Your task to perform on an android device: check android version Image 0: 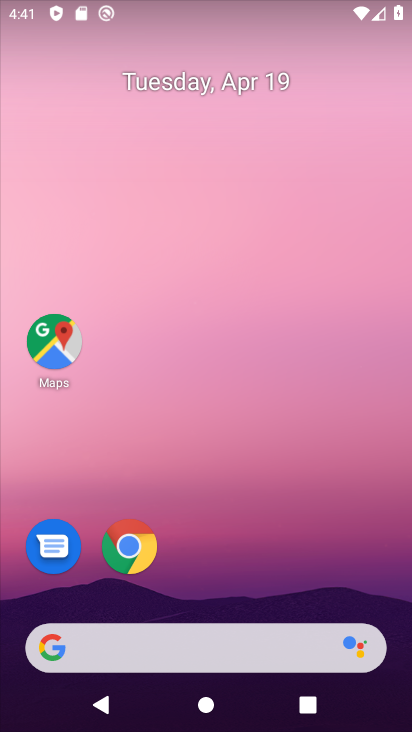
Step 0: drag from (352, 544) to (304, 181)
Your task to perform on an android device: check android version Image 1: 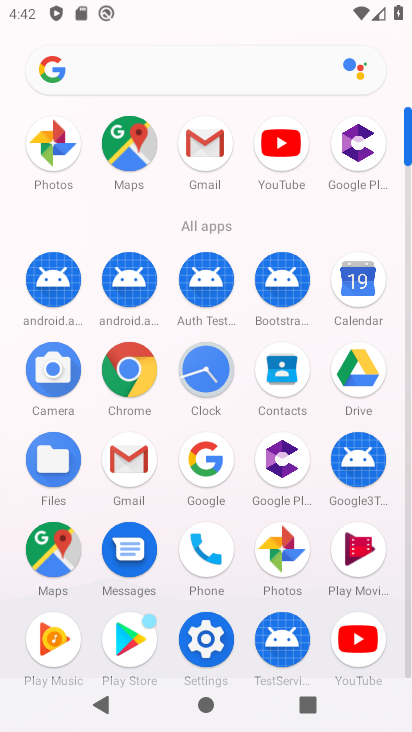
Step 1: click (203, 626)
Your task to perform on an android device: check android version Image 2: 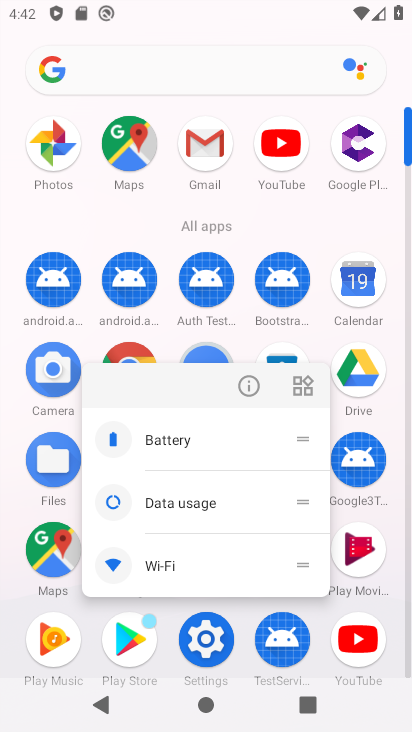
Step 2: click (212, 626)
Your task to perform on an android device: check android version Image 3: 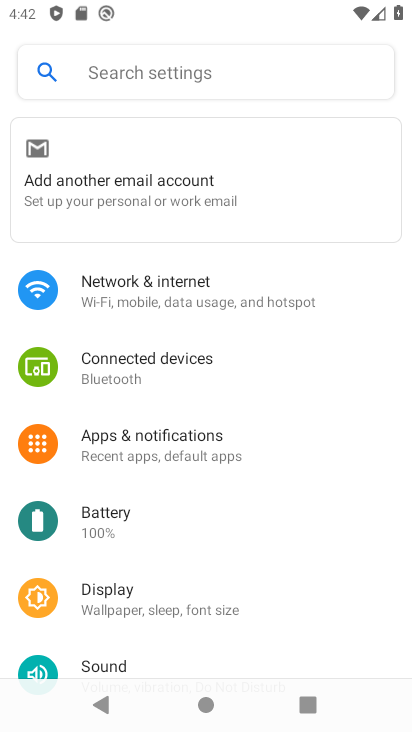
Step 3: drag from (213, 443) to (208, 255)
Your task to perform on an android device: check android version Image 4: 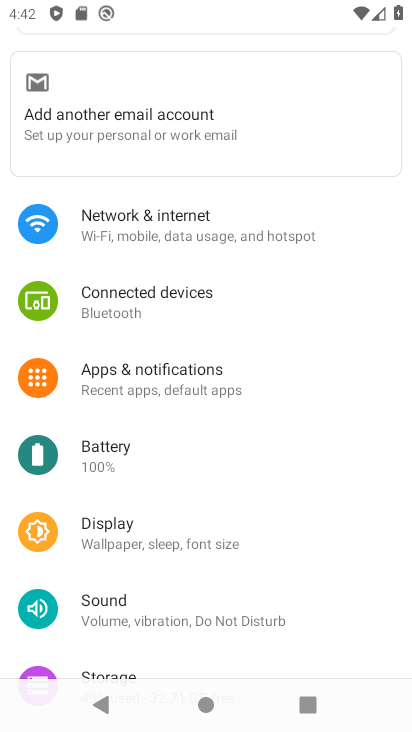
Step 4: drag from (226, 470) to (289, 174)
Your task to perform on an android device: check android version Image 5: 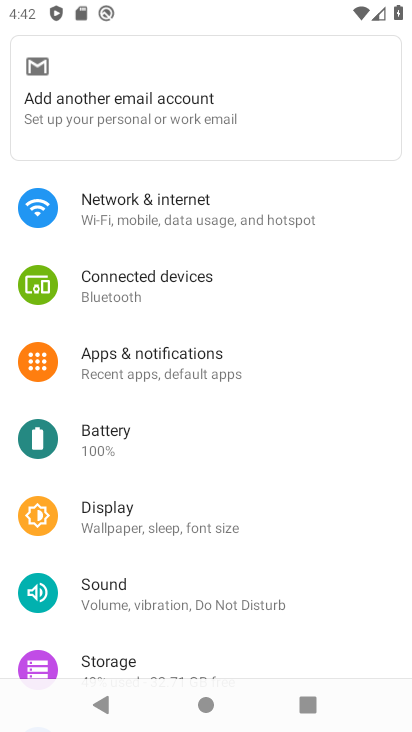
Step 5: drag from (227, 499) to (268, 151)
Your task to perform on an android device: check android version Image 6: 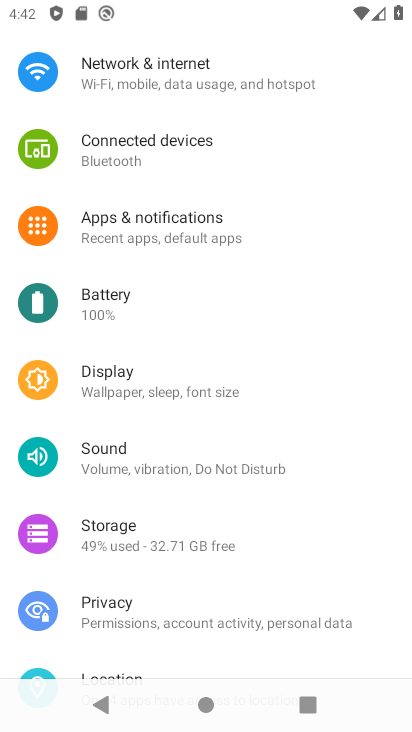
Step 6: drag from (245, 565) to (308, 150)
Your task to perform on an android device: check android version Image 7: 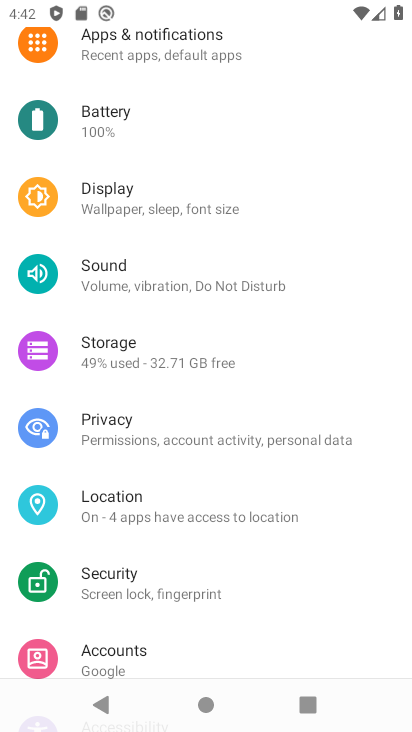
Step 7: drag from (193, 427) to (277, 72)
Your task to perform on an android device: check android version Image 8: 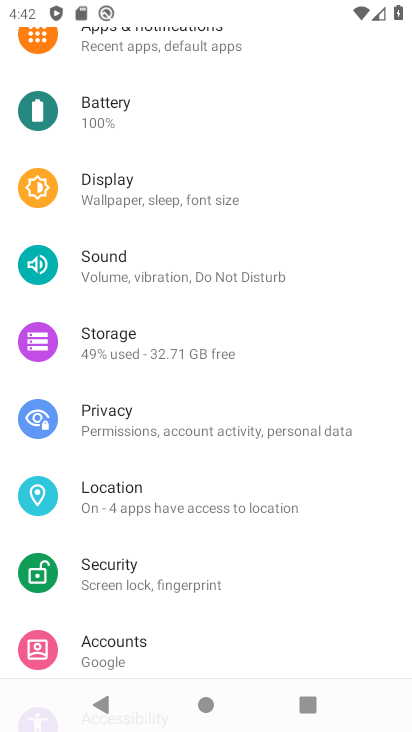
Step 8: drag from (299, 440) to (289, 42)
Your task to perform on an android device: check android version Image 9: 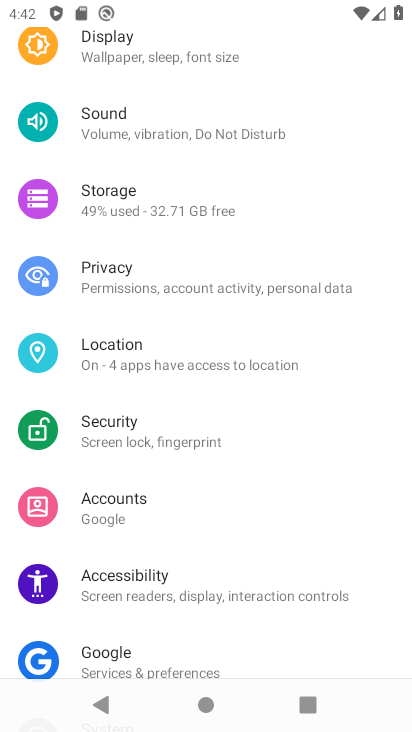
Step 9: drag from (213, 628) to (320, 165)
Your task to perform on an android device: check android version Image 10: 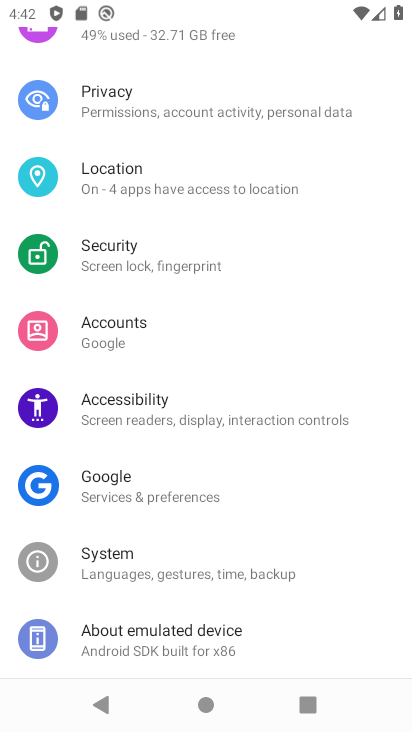
Step 10: click (196, 659)
Your task to perform on an android device: check android version Image 11: 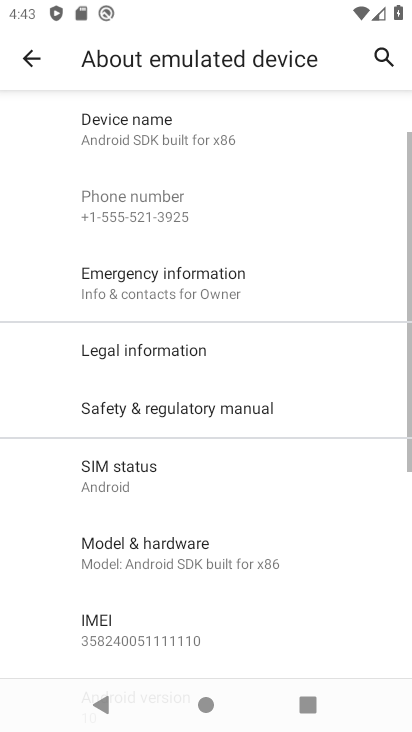
Step 11: drag from (237, 239) to (206, 583)
Your task to perform on an android device: check android version Image 12: 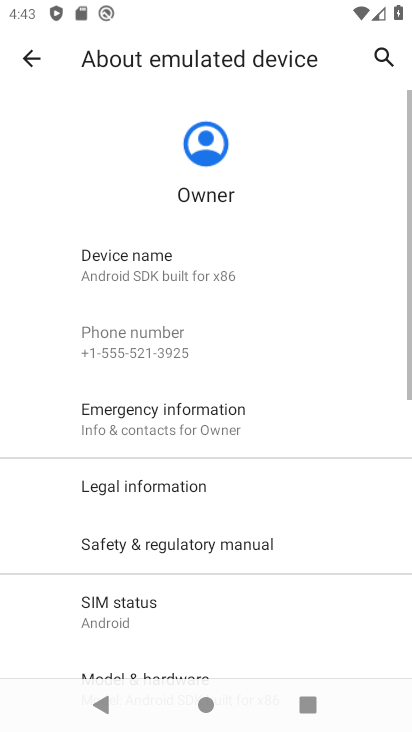
Step 12: drag from (324, 475) to (292, 224)
Your task to perform on an android device: check android version Image 13: 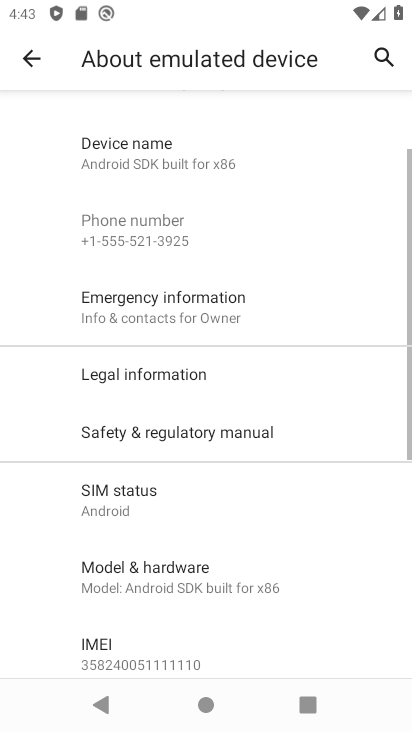
Step 13: drag from (245, 504) to (252, 275)
Your task to perform on an android device: check android version Image 14: 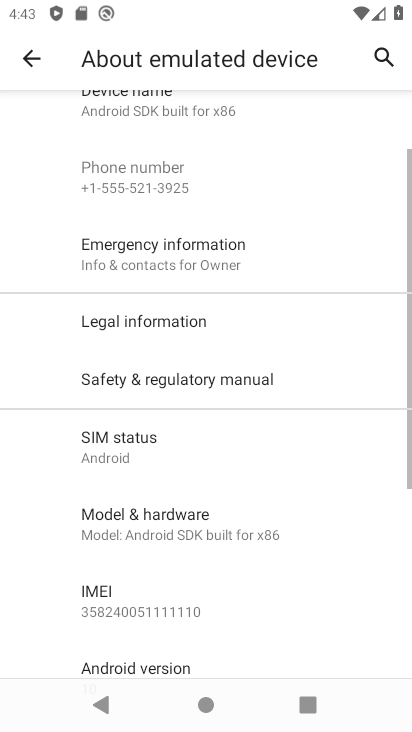
Step 14: drag from (207, 582) to (286, 264)
Your task to perform on an android device: check android version Image 15: 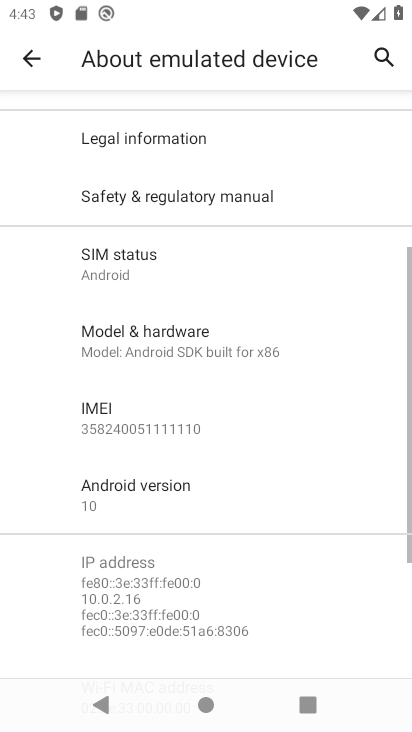
Step 15: drag from (176, 607) to (101, 293)
Your task to perform on an android device: check android version Image 16: 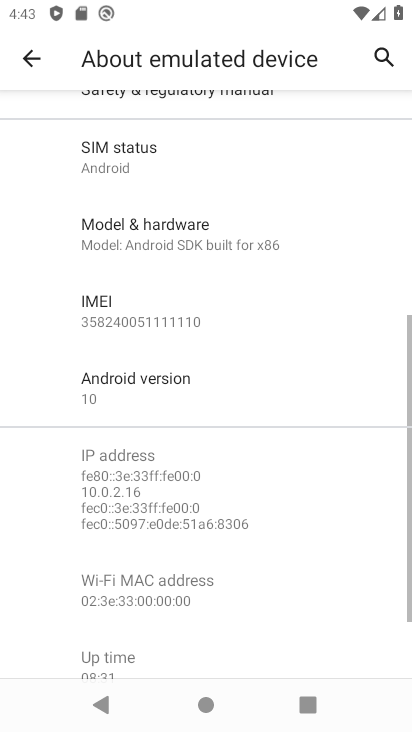
Step 16: click (132, 391)
Your task to perform on an android device: check android version Image 17: 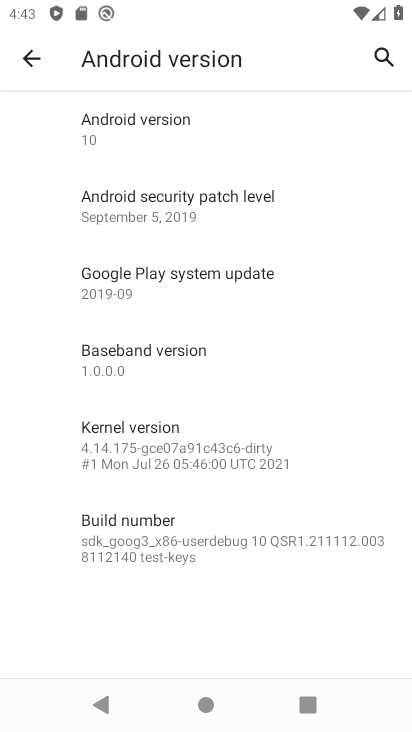
Step 17: click (86, 126)
Your task to perform on an android device: check android version Image 18: 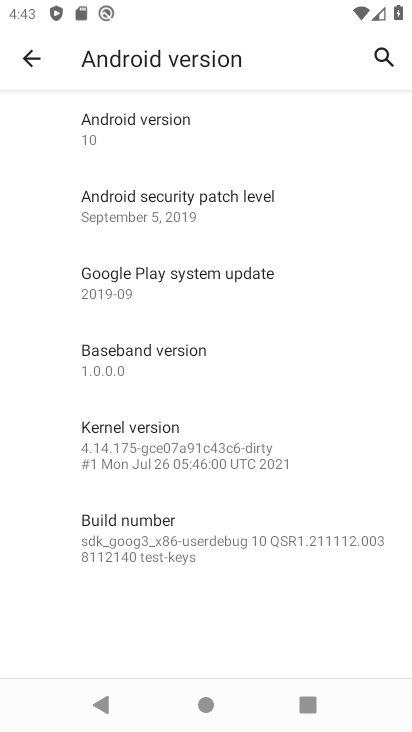
Step 18: task complete